Your task to perform on an android device: Go to Yahoo.com Image 0: 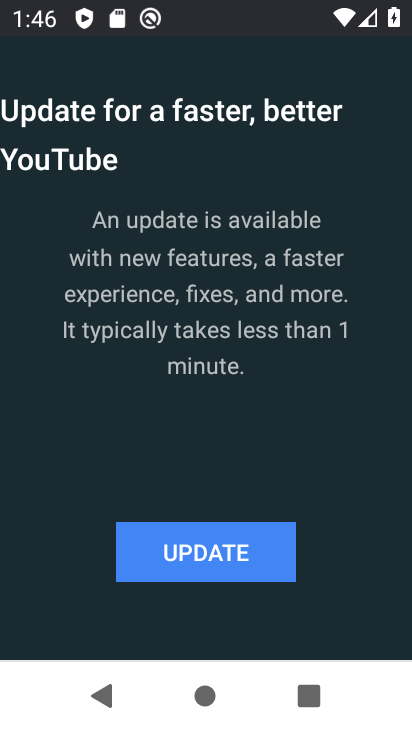
Step 0: press home button
Your task to perform on an android device: Go to Yahoo.com Image 1: 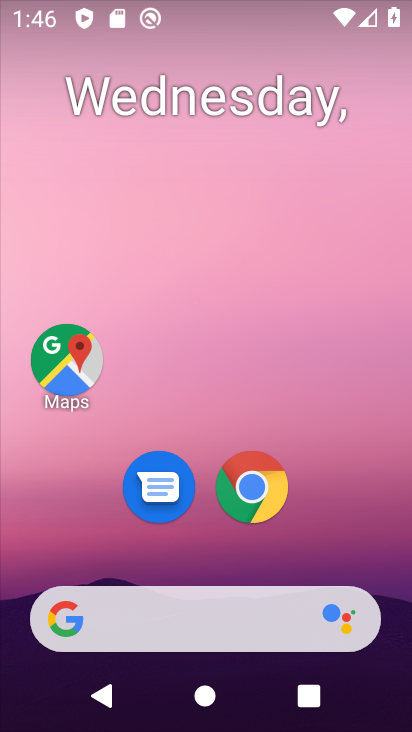
Step 1: drag from (278, 503) to (358, 503)
Your task to perform on an android device: Go to Yahoo.com Image 2: 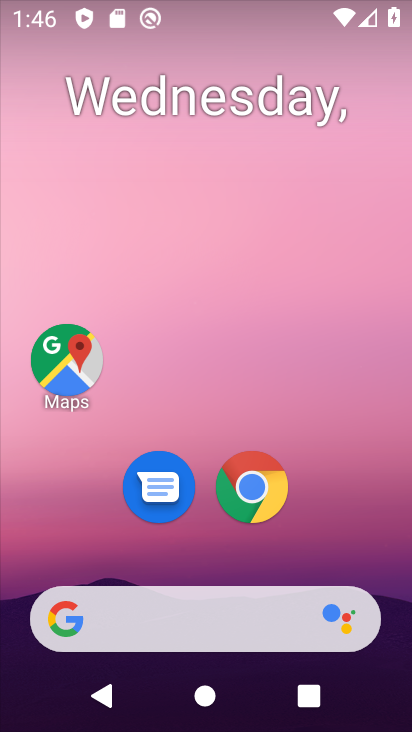
Step 2: click (263, 500)
Your task to perform on an android device: Go to Yahoo.com Image 3: 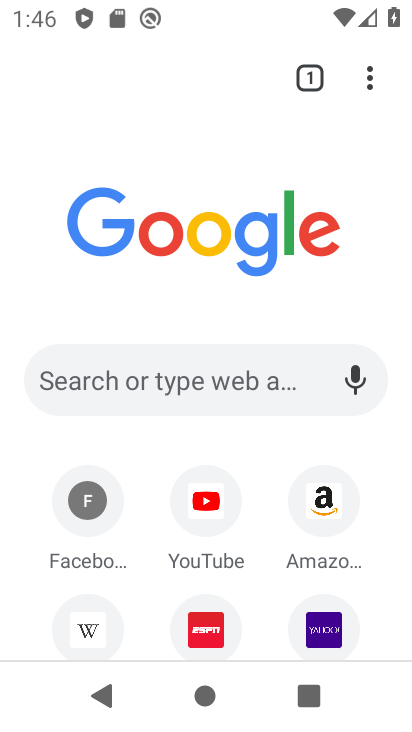
Step 3: click (319, 628)
Your task to perform on an android device: Go to Yahoo.com Image 4: 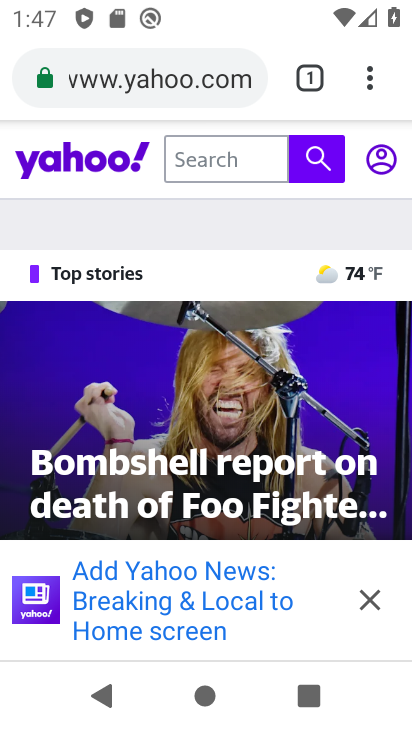
Step 4: task complete